Your task to perform on an android device: open chrome privacy settings Image 0: 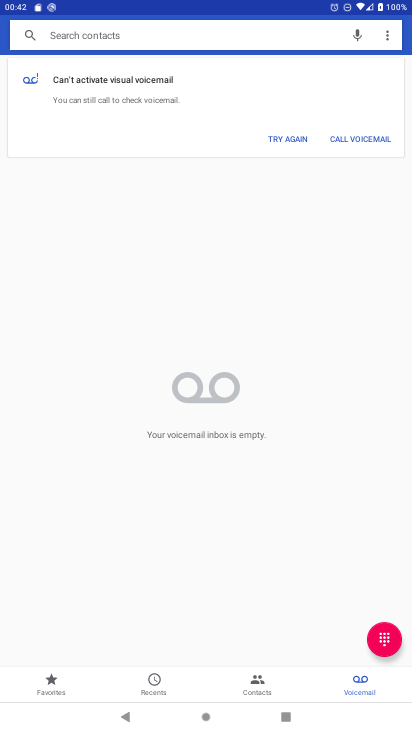
Step 0: press home button
Your task to perform on an android device: open chrome privacy settings Image 1: 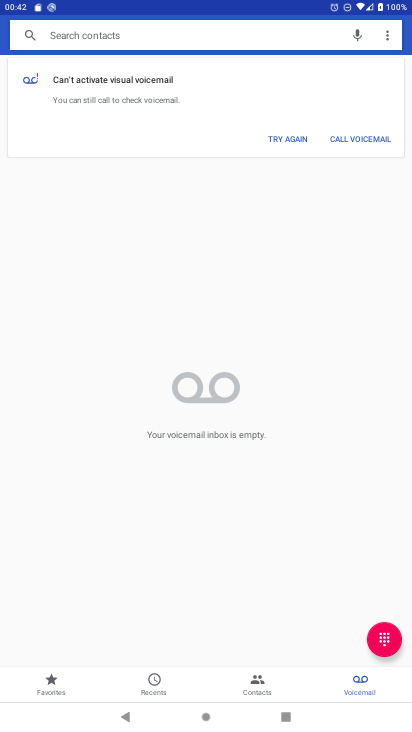
Step 1: press home button
Your task to perform on an android device: open chrome privacy settings Image 2: 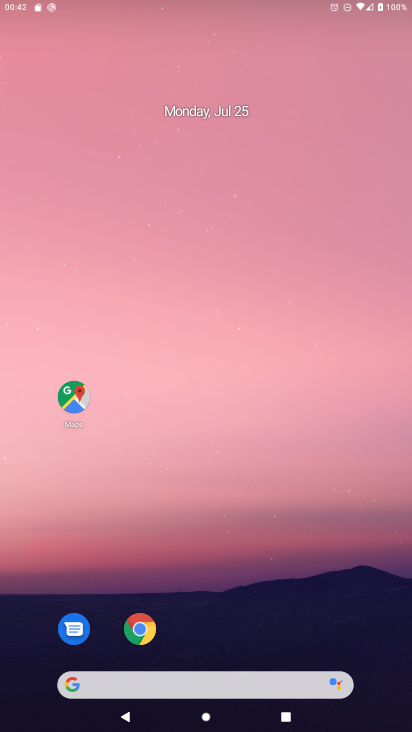
Step 2: drag from (228, 535) to (275, 232)
Your task to perform on an android device: open chrome privacy settings Image 3: 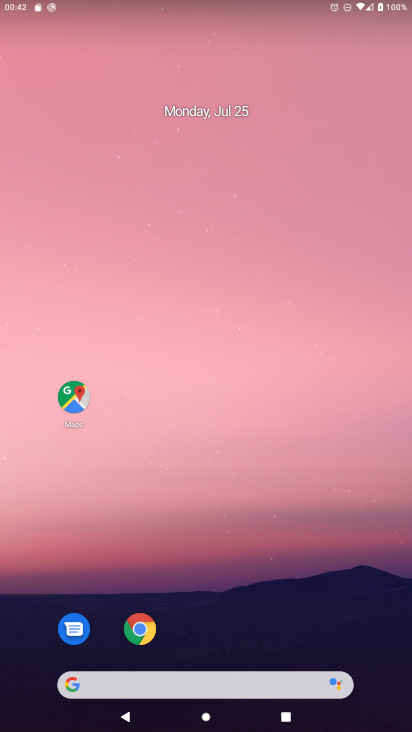
Step 3: click (151, 620)
Your task to perform on an android device: open chrome privacy settings Image 4: 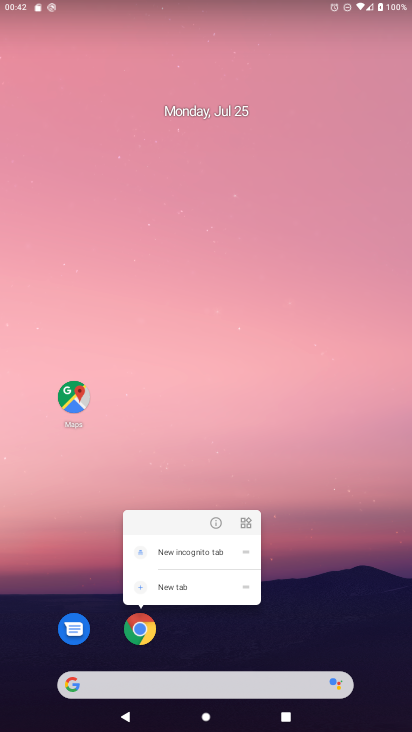
Step 4: click (216, 511)
Your task to perform on an android device: open chrome privacy settings Image 5: 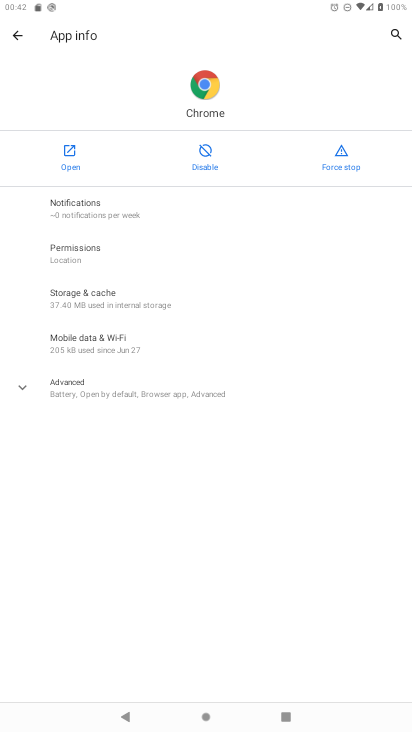
Step 5: click (59, 163)
Your task to perform on an android device: open chrome privacy settings Image 6: 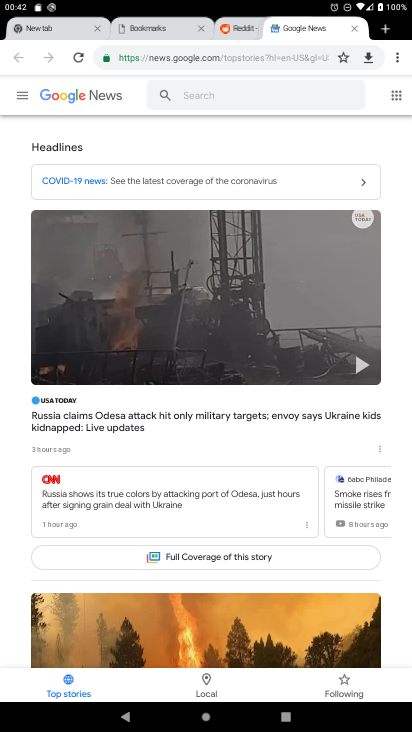
Step 6: drag from (403, 58) to (280, 384)
Your task to perform on an android device: open chrome privacy settings Image 7: 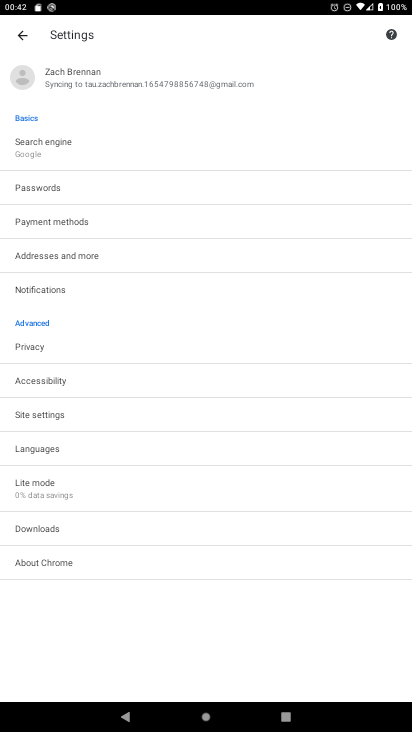
Step 7: click (67, 340)
Your task to perform on an android device: open chrome privacy settings Image 8: 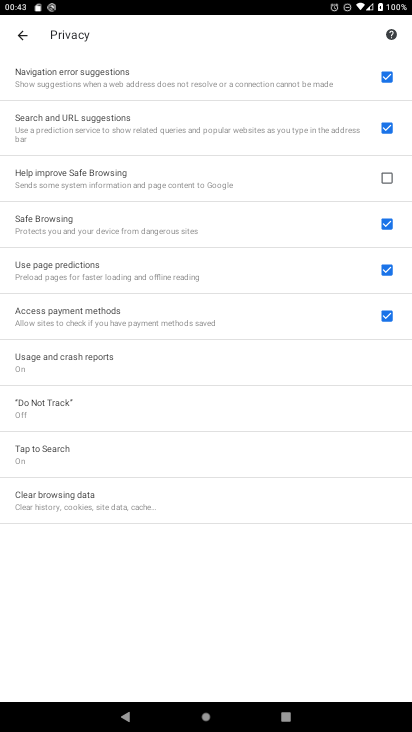
Step 8: task complete